Your task to perform on an android device: Go to Google Image 0: 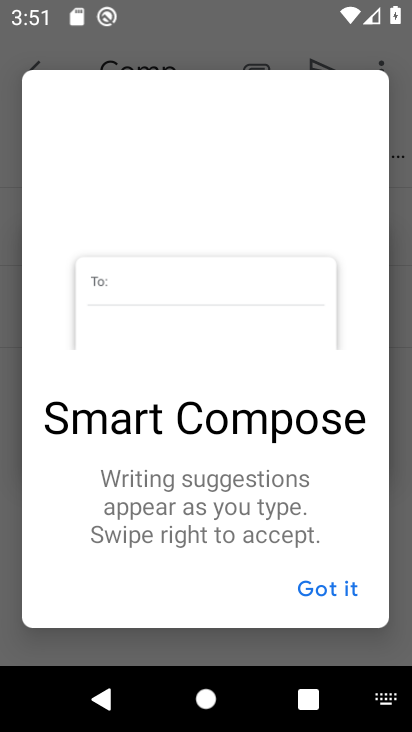
Step 0: press home button
Your task to perform on an android device: Go to Google Image 1: 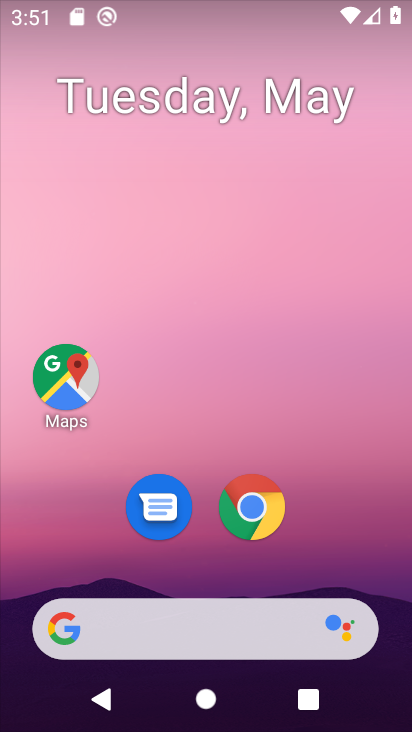
Step 1: drag from (294, 490) to (313, 60)
Your task to perform on an android device: Go to Google Image 2: 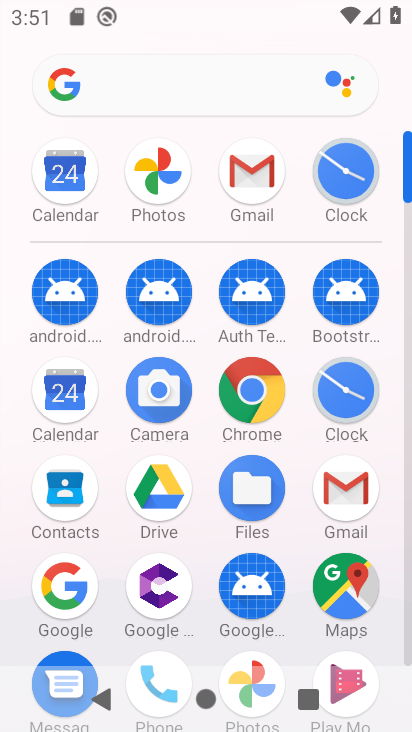
Step 2: click (57, 593)
Your task to perform on an android device: Go to Google Image 3: 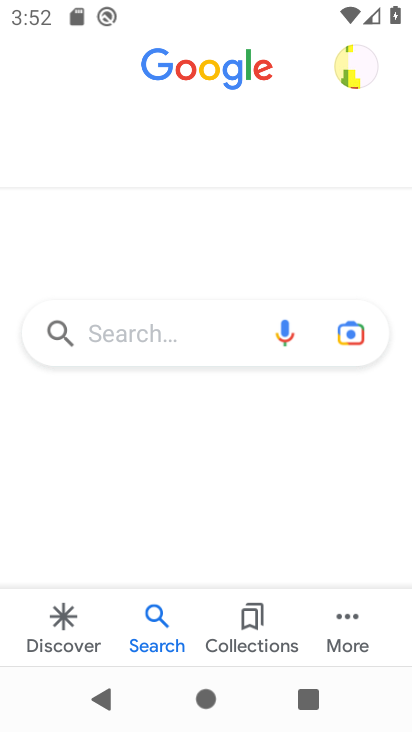
Step 3: task complete